Your task to perform on an android device: Search for flights from NYC to Paris Image 0: 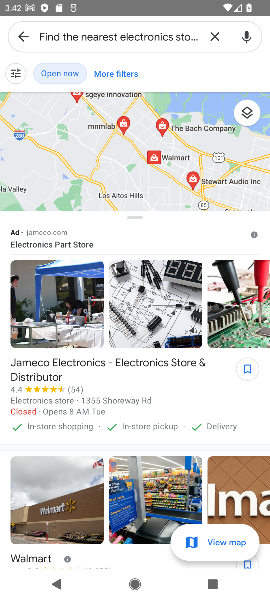
Step 0: press home button
Your task to perform on an android device: Search for flights from NYC to Paris Image 1: 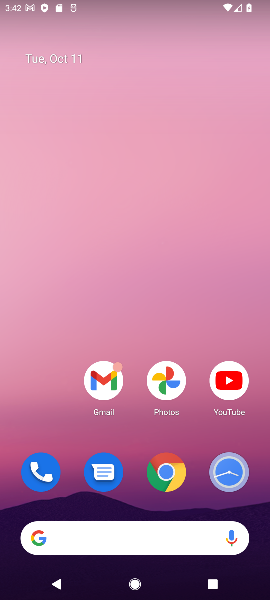
Step 1: click (131, 534)
Your task to perform on an android device: Search for flights from NYC to Paris Image 2: 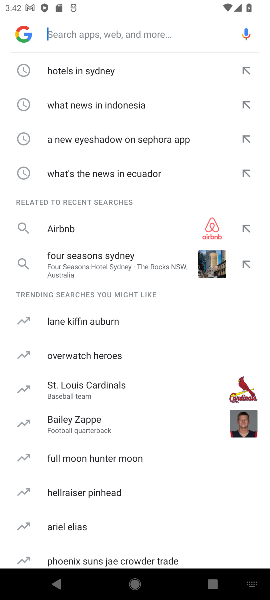
Step 2: type " flights from NYC to Paris"
Your task to perform on an android device: Search for flights from NYC to Paris Image 3: 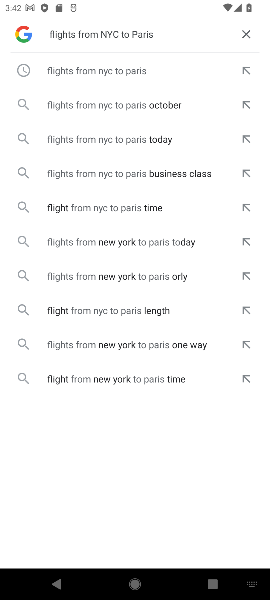
Step 3: click (142, 75)
Your task to perform on an android device: Search for flights from NYC to Paris Image 4: 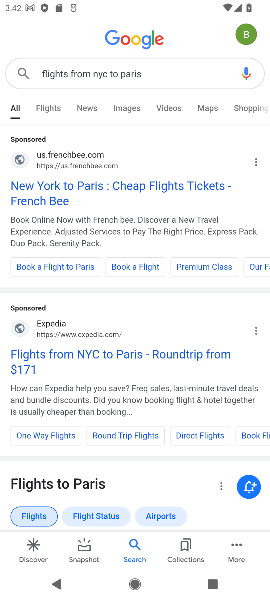
Step 4: task complete